Your task to perform on an android device: toggle sleep mode Image 0: 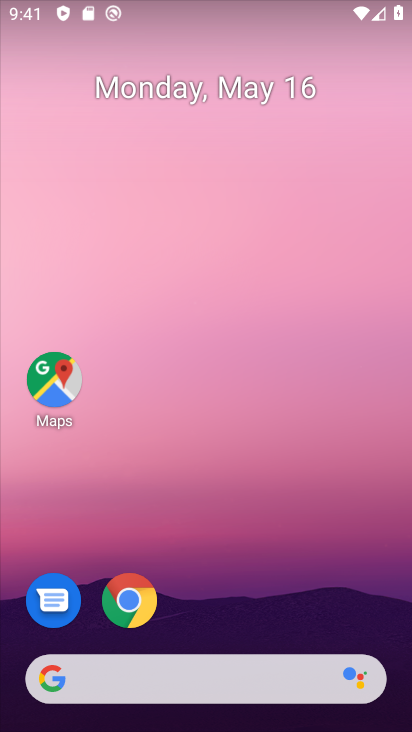
Step 0: drag from (362, 593) to (319, 173)
Your task to perform on an android device: toggle sleep mode Image 1: 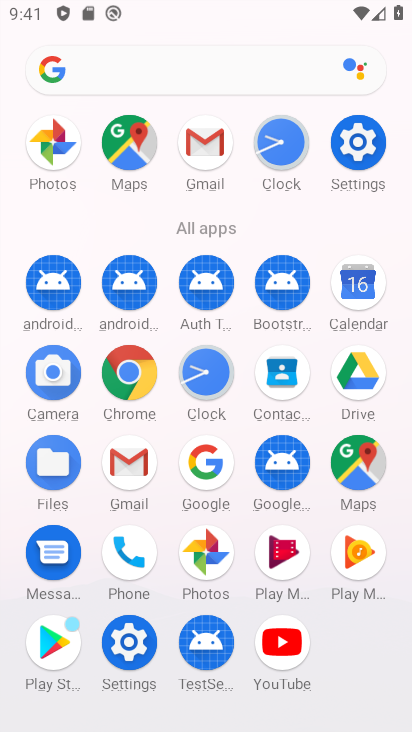
Step 1: click (147, 638)
Your task to perform on an android device: toggle sleep mode Image 2: 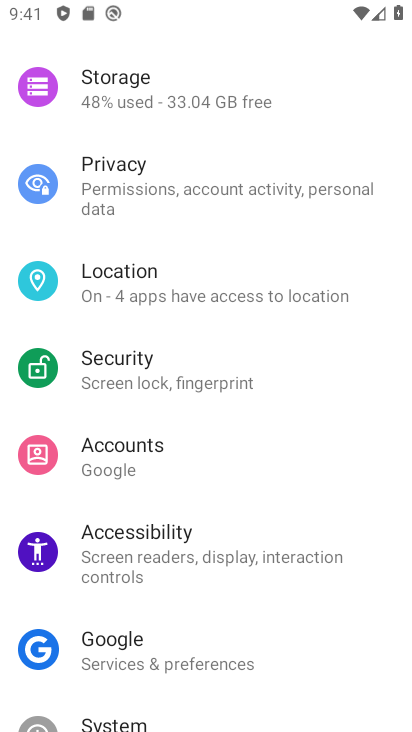
Step 2: drag from (270, 223) to (290, 560)
Your task to perform on an android device: toggle sleep mode Image 3: 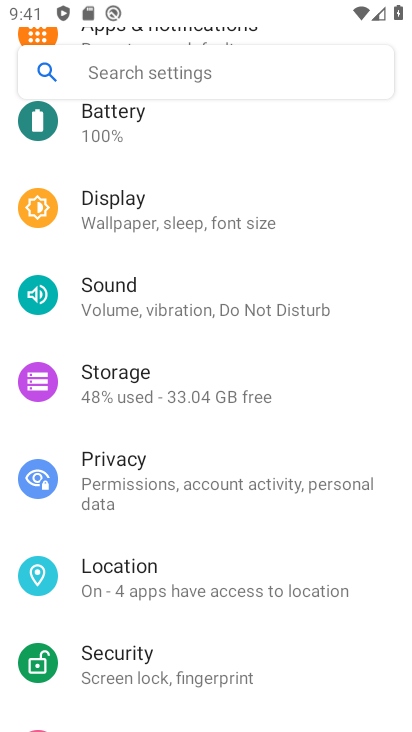
Step 3: click (264, 82)
Your task to perform on an android device: toggle sleep mode Image 4: 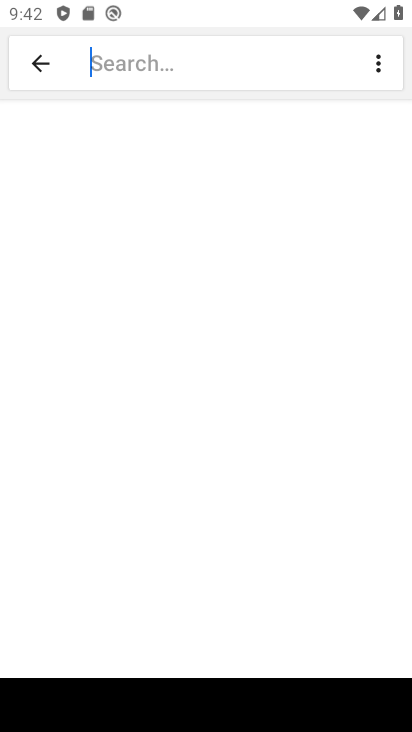
Step 4: type "sleep mode"
Your task to perform on an android device: toggle sleep mode Image 5: 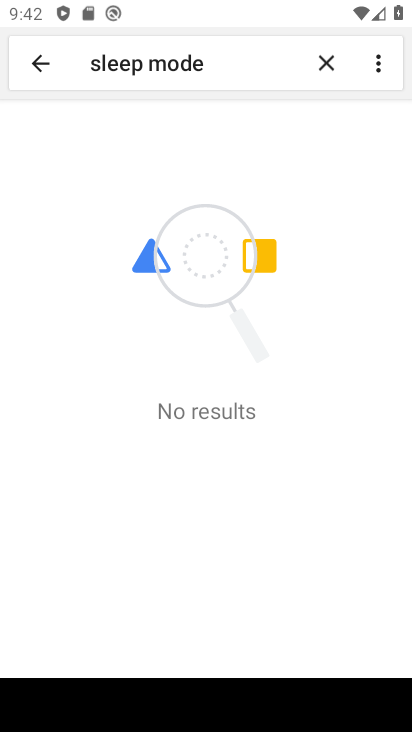
Step 5: task complete